Your task to perform on an android device: Is it going to rain today? Image 0: 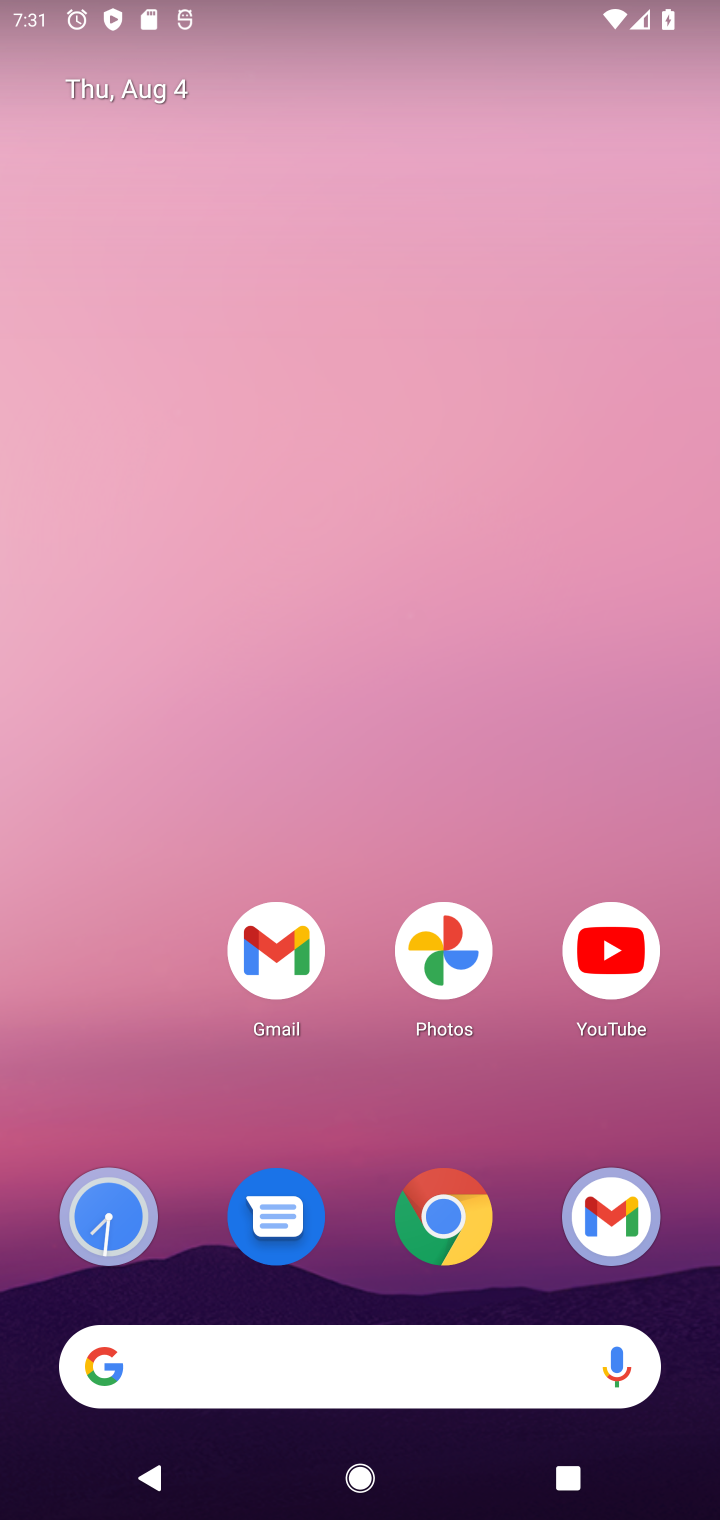
Step 0: drag from (695, 951) to (642, 64)
Your task to perform on an android device: Is it going to rain today? Image 1: 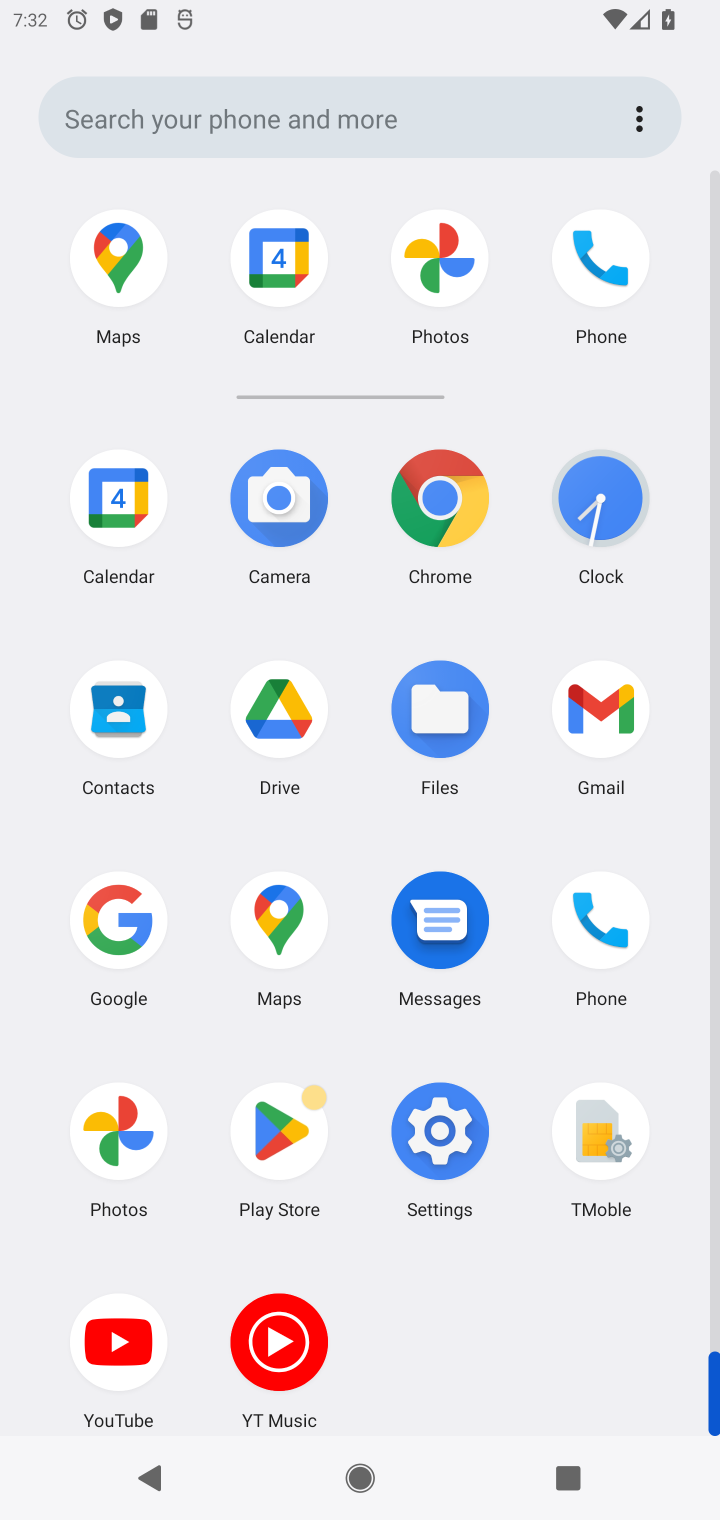
Step 1: click (143, 914)
Your task to perform on an android device: Is it going to rain today? Image 2: 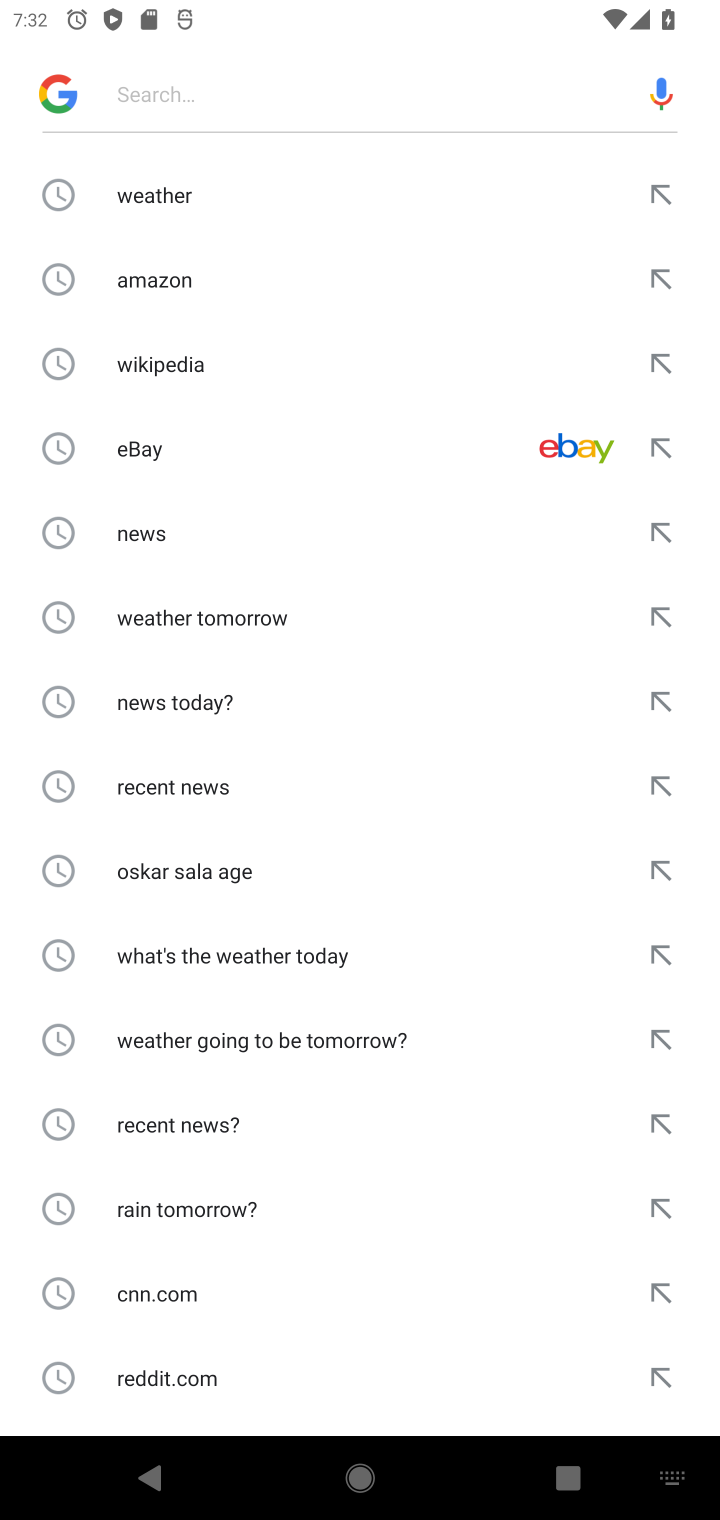
Step 2: click (268, 184)
Your task to perform on an android device: Is it going to rain today? Image 3: 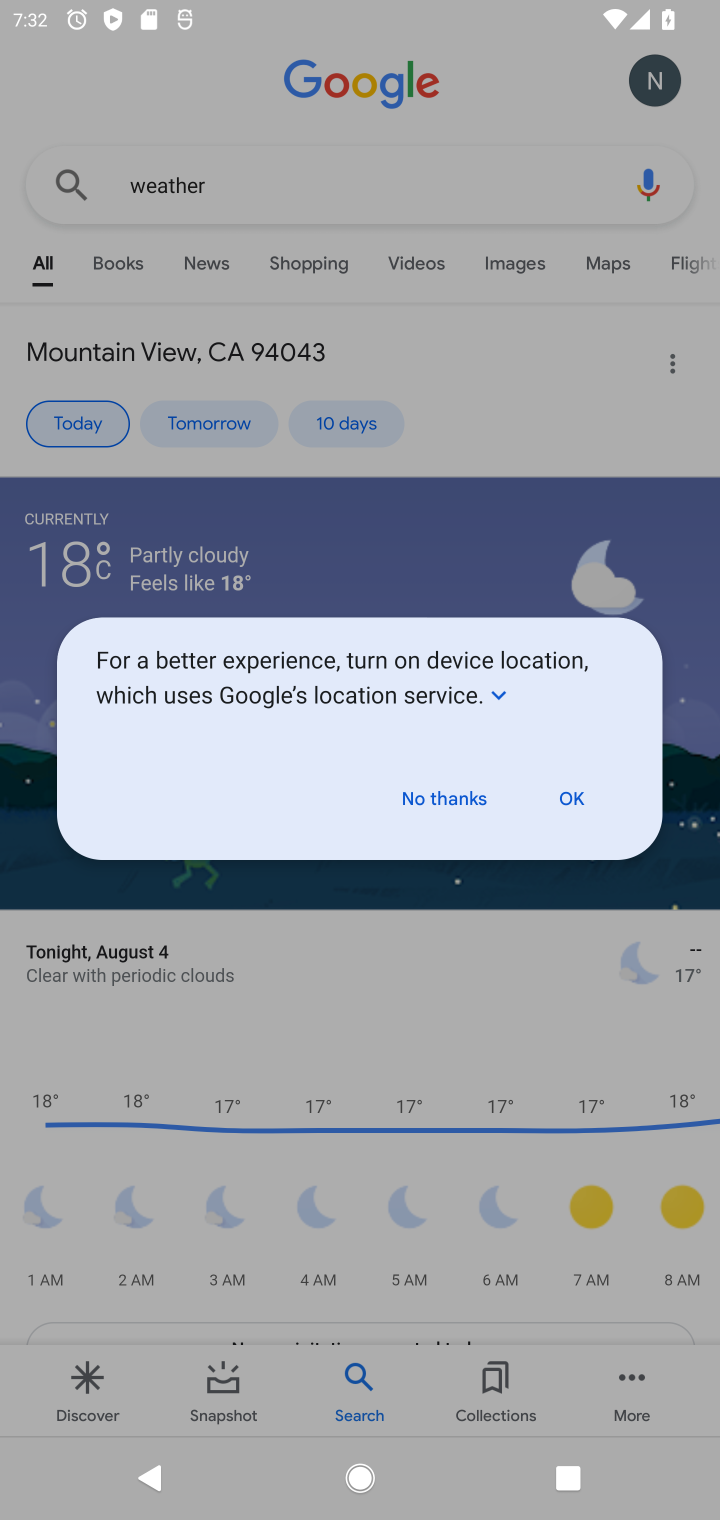
Step 3: click (575, 798)
Your task to perform on an android device: Is it going to rain today? Image 4: 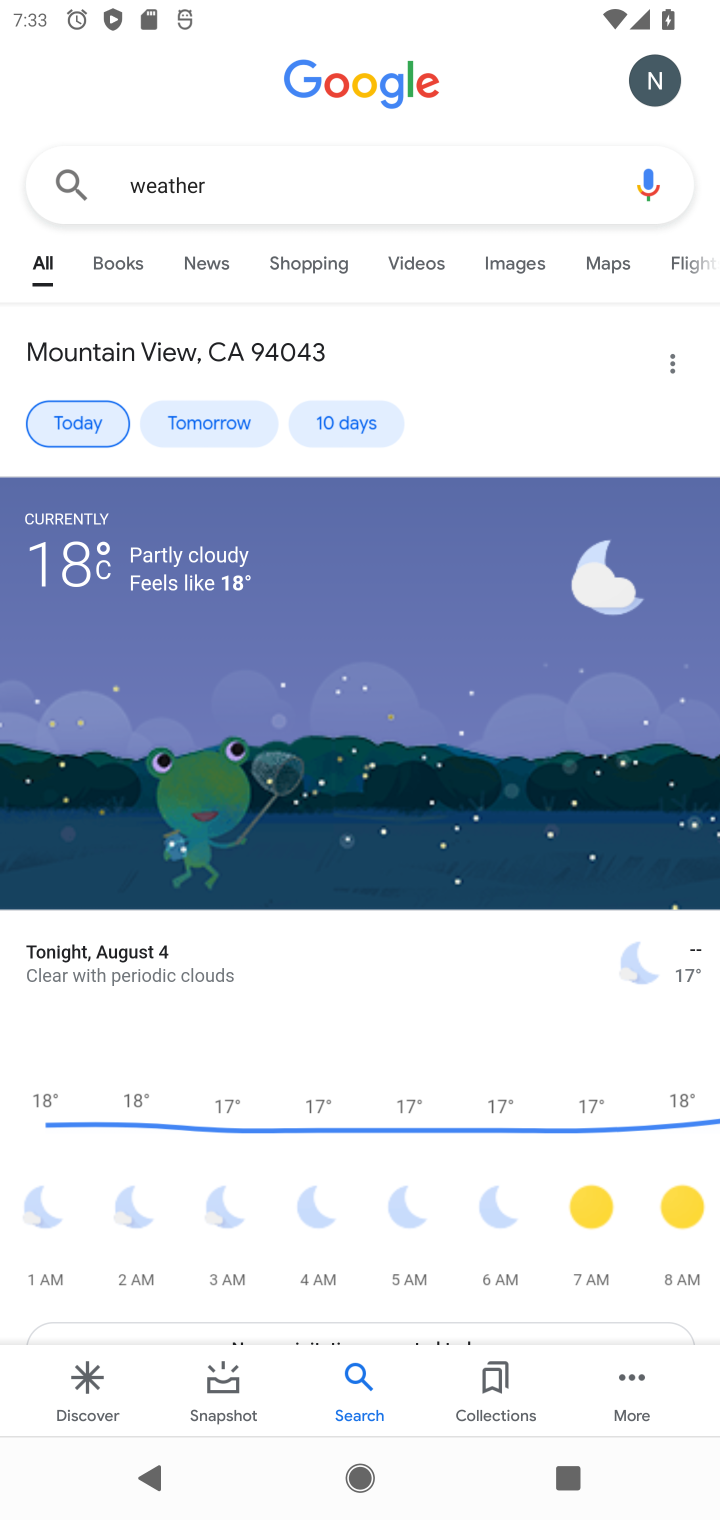
Step 4: task complete